Your task to perform on an android device: When is my next meeting? Image 0: 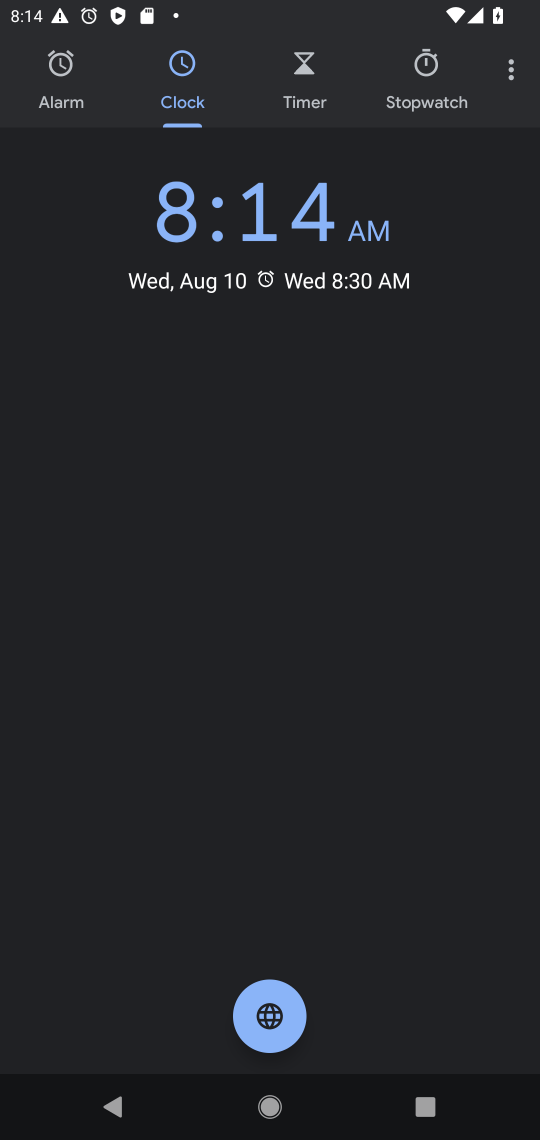
Step 0: press home button
Your task to perform on an android device: When is my next meeting? Image 1: 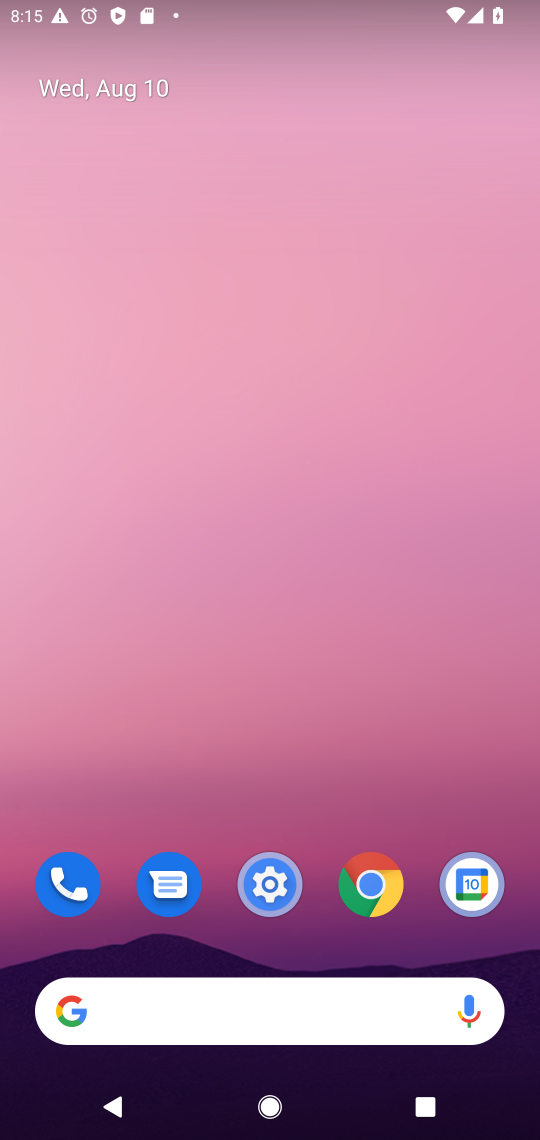
Step 1: click (491, 883)
Your task to perform on an android device: When is my next meeting? Image 2: 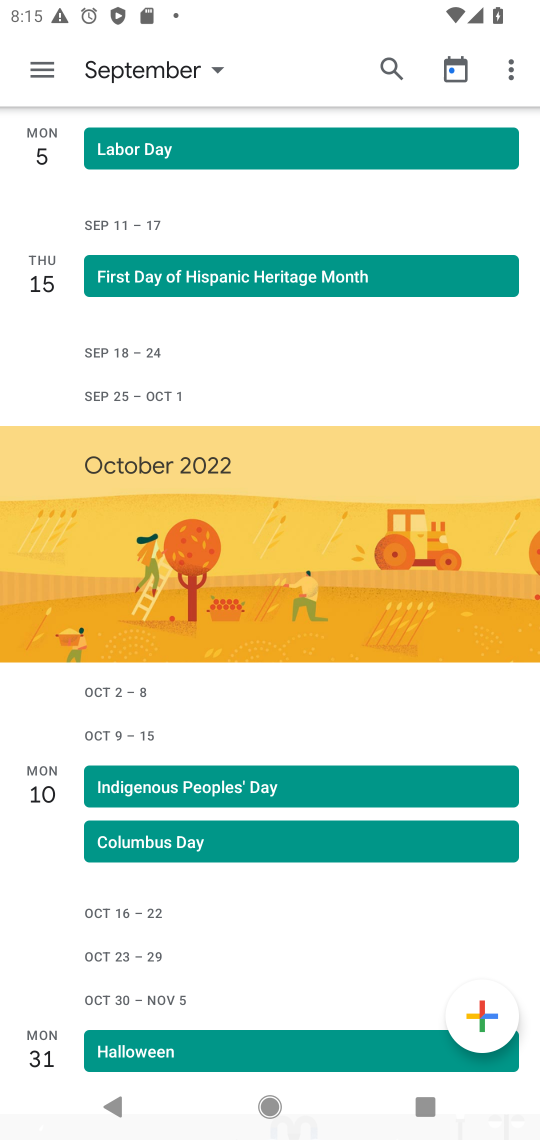
Step 2: click (188, 70)
Your task to perform on an android device: When is my next meeting? Image 3: 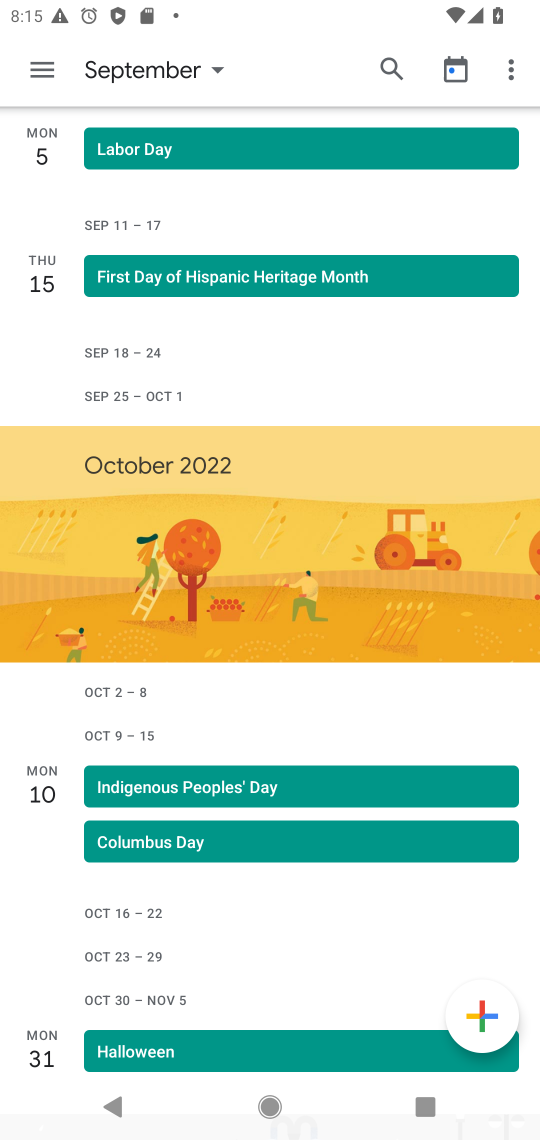
Step 3: click (212, 71)
Your task to perform on an android device: When is my next meeting? Image 4: 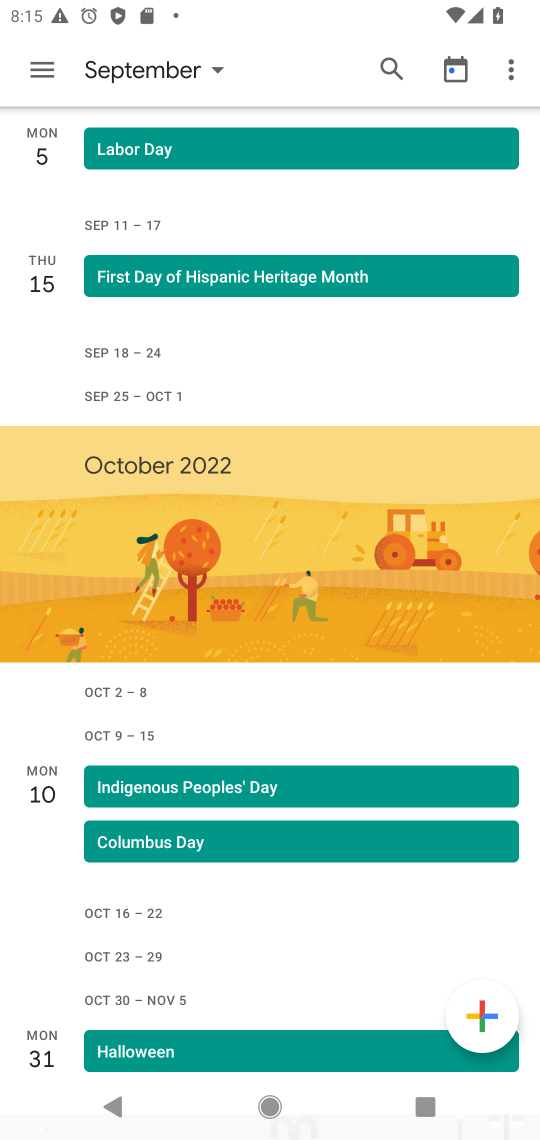
Step 4: click (153, 75)
Your task to perform on an android device: When is my next meeting? Image 5: 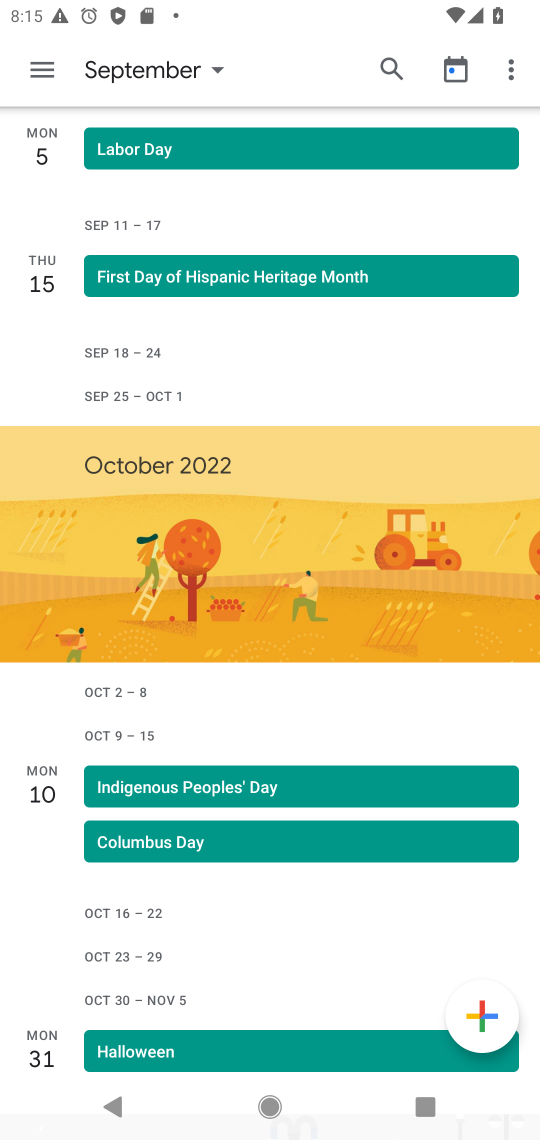
Step 5: click (211, 67)
Your task to perform on an android device: When is my next meeting? Image 6: 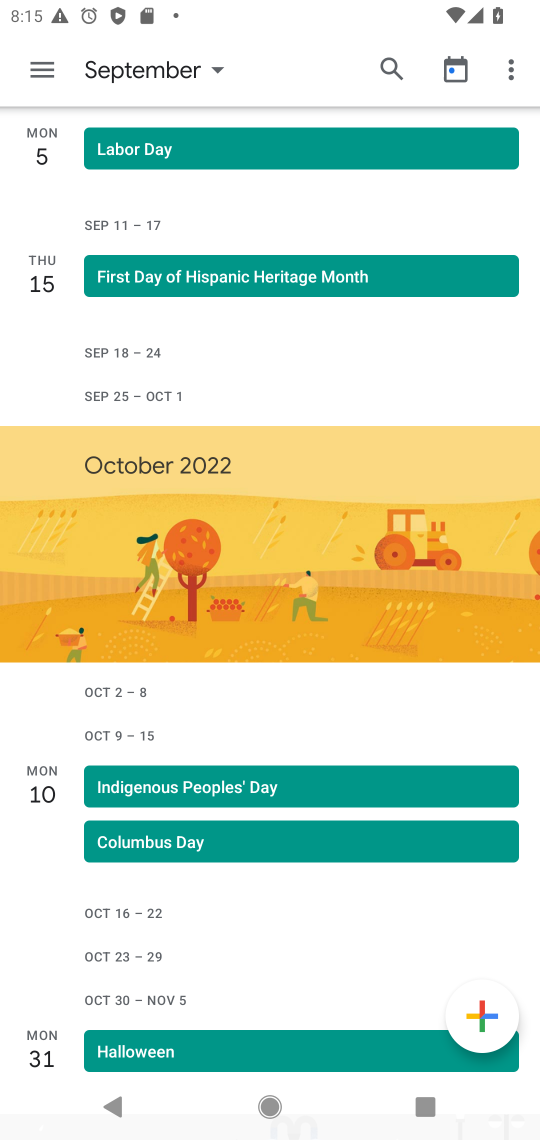
Step 6: click (211, 67)
Your task to perform on an android device: When is my next meeting? Image 7: 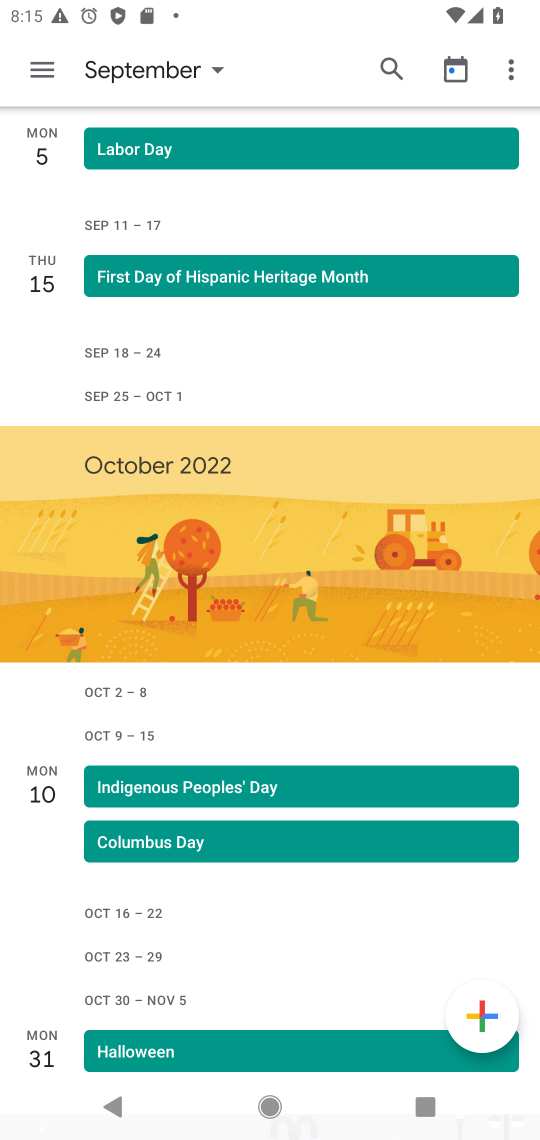
Step 7: click (211, 67)
Your task to perform on an android device: When is my next meeting? Image 8: 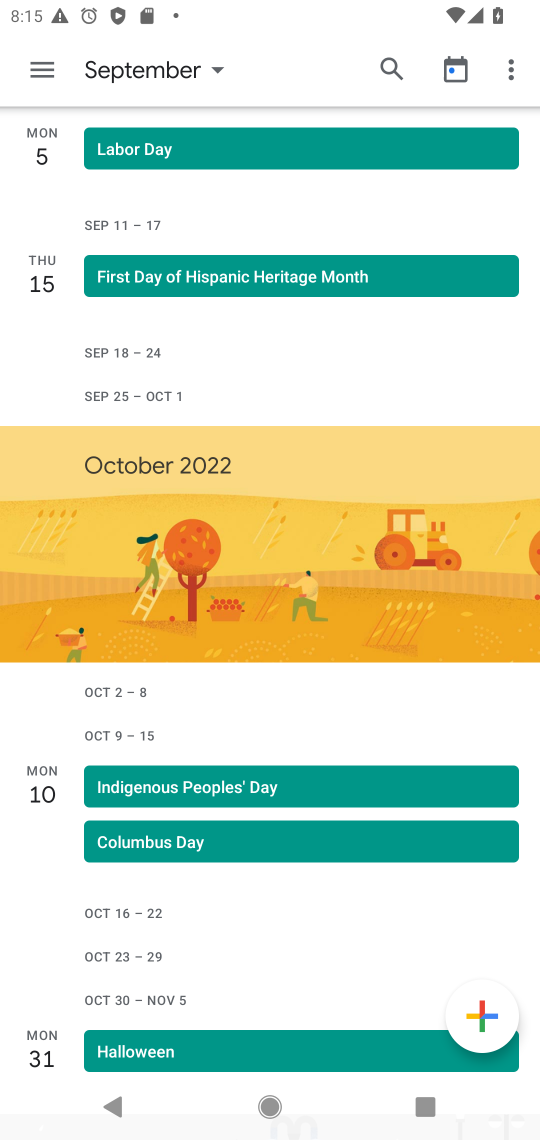
Step 8: click (33, 55)
Your task to perform on an android device: When is my next meeting? Image 9: 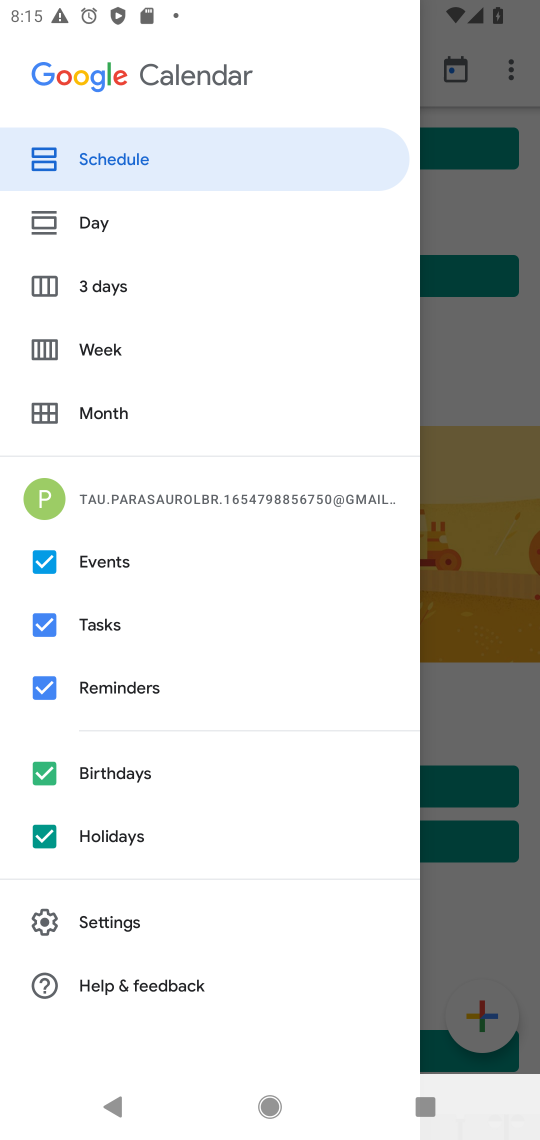
Step 9: click (49, 417)
Your task to perform on an android device: When is my next meeting? Image 10: 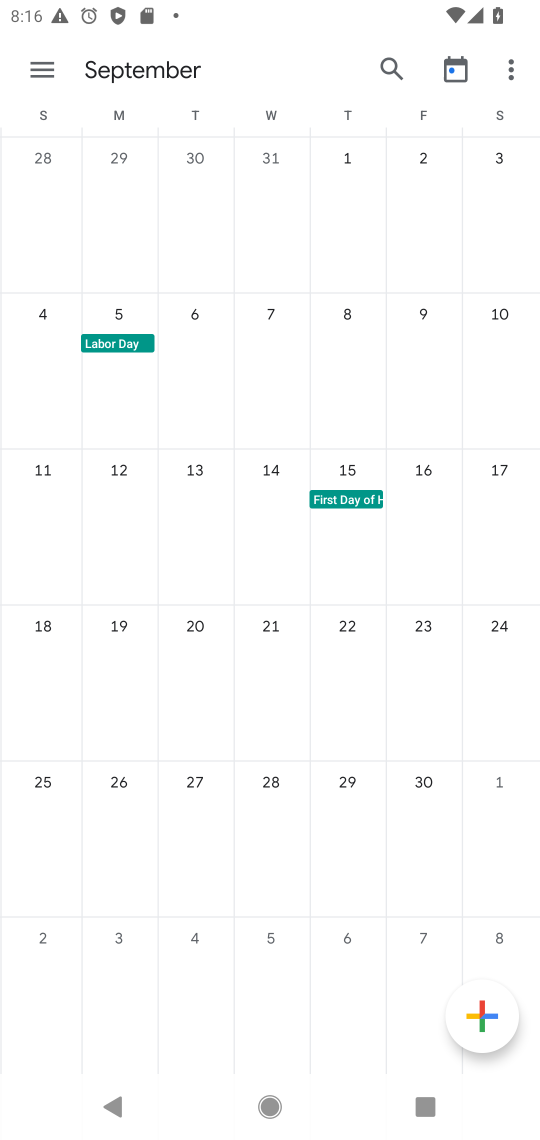
Step 10: click (47, 66)
Your task to perform on an android device: When is my next meeting? Image 11: 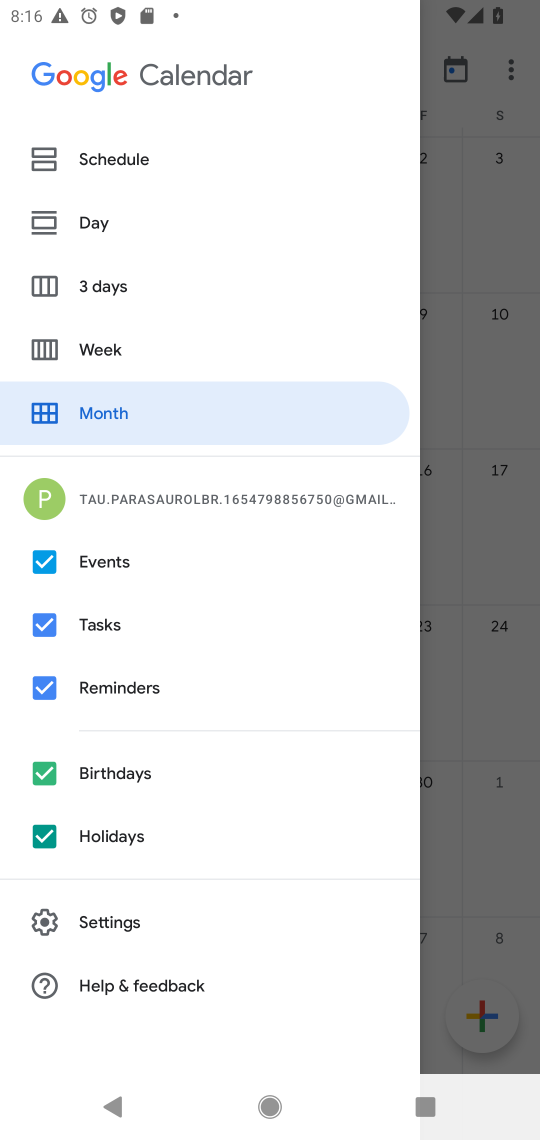
Step 11: click (67, 165)
Your task to perform on an android device: When is my next meeting? Image 12: 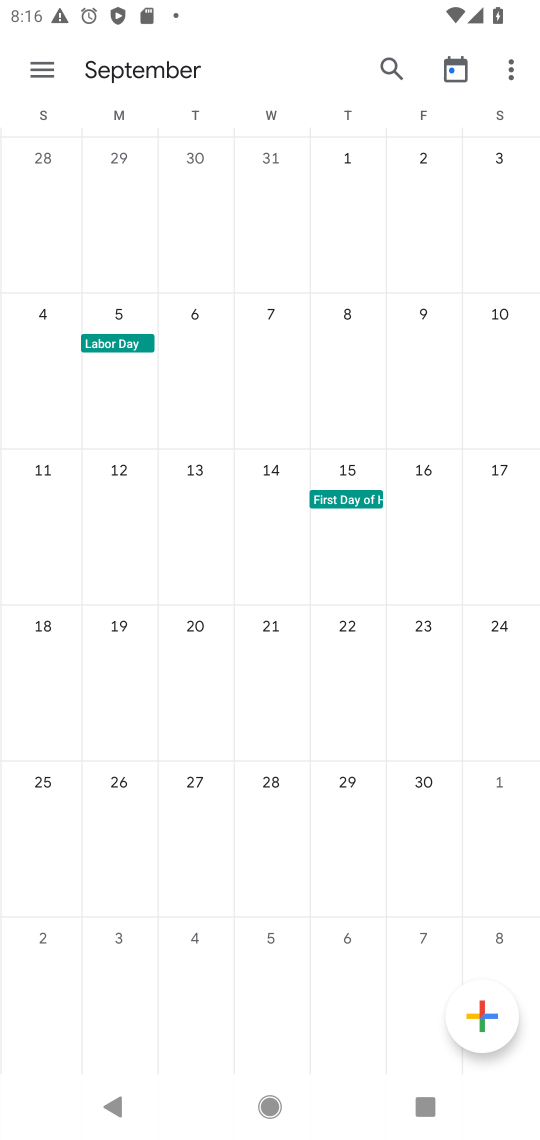
Step 12: click (88, 164)
Your task to perform on an android device: When is my next meeting? Image 13: 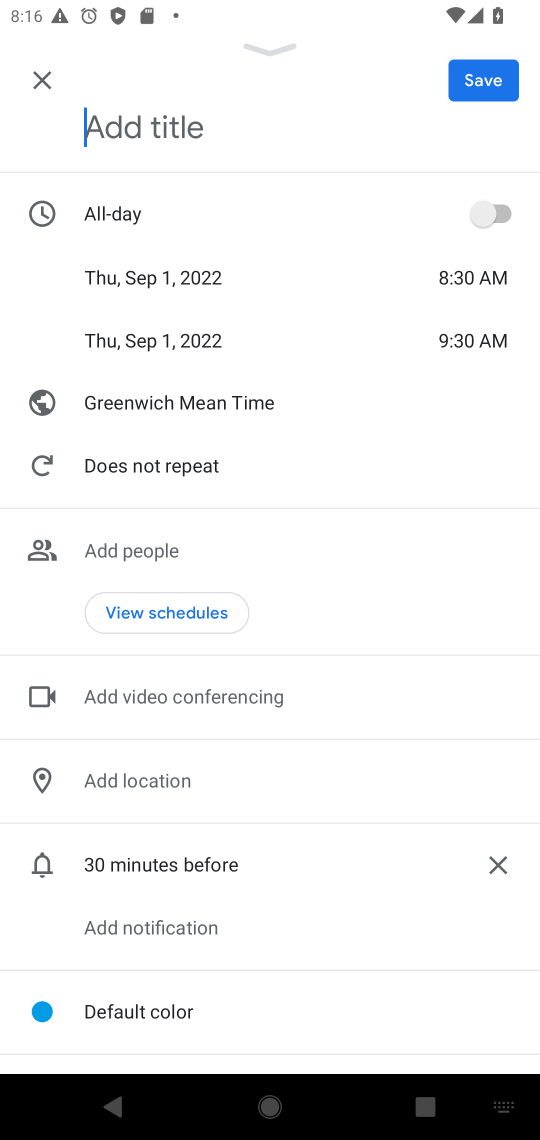
Step 13: click (49, 86)
Your task to perform on an android device: When is my next meeting? Image 14: 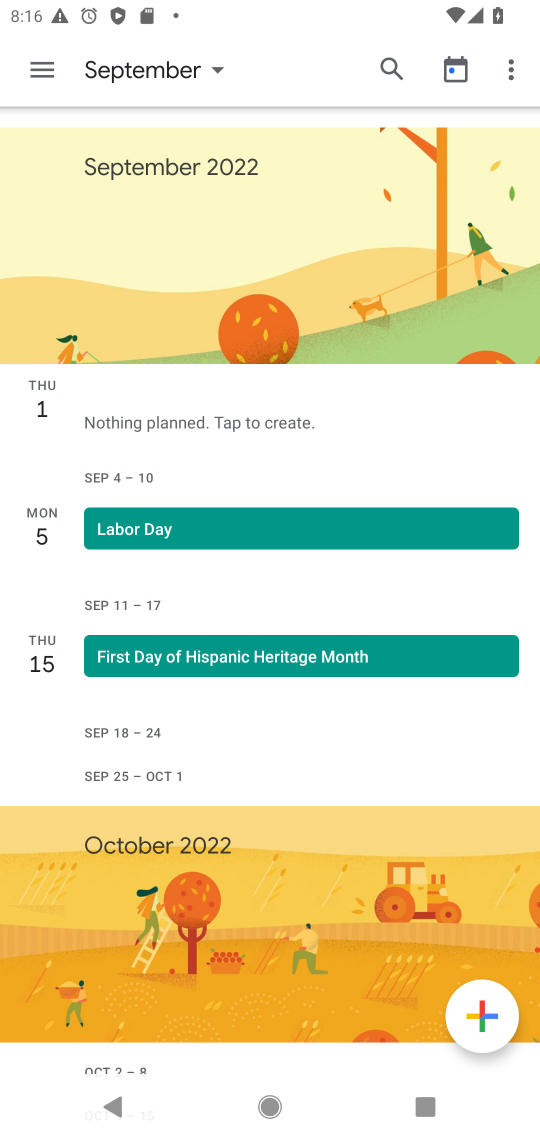
Step 14: click (201, 73)
Your task to perform on an android device: When is my next meeting? Image 15: 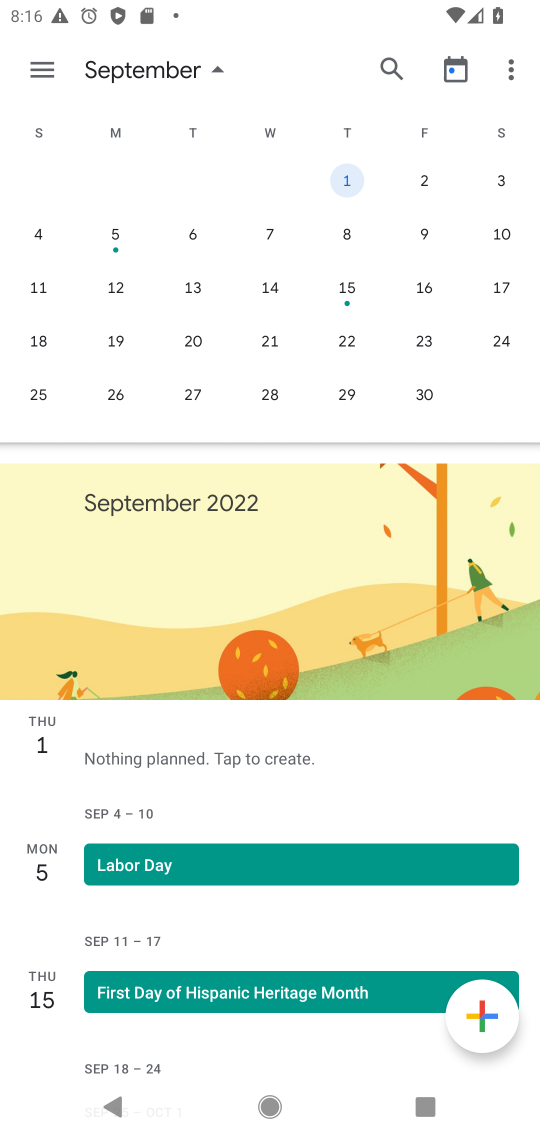
Step 15: task complete